Your task to perform on an android device: Open Google Chrome Image 0: 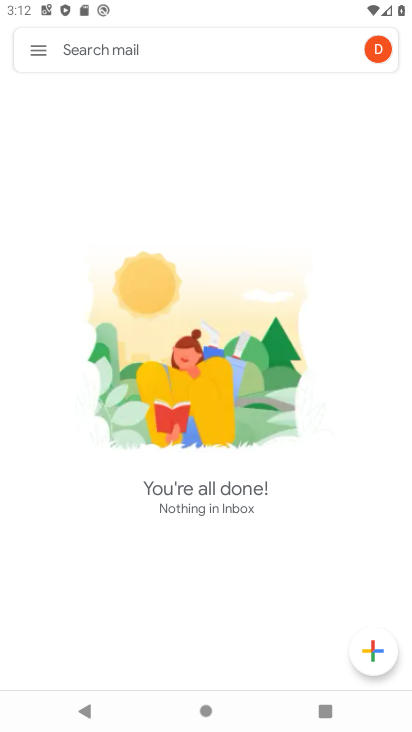
Step 0: press home button
Your task to perform on an android device: Open Google Chrome Image 1: 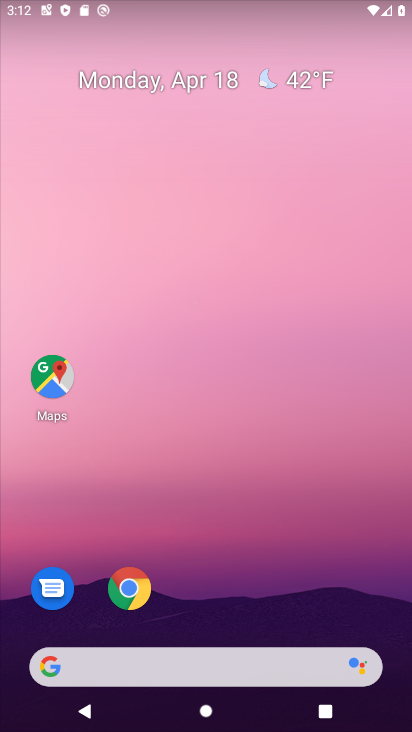
Step 1: click (143, 582)
Your task to perform on an android device: Open Google Chrome Image 2: 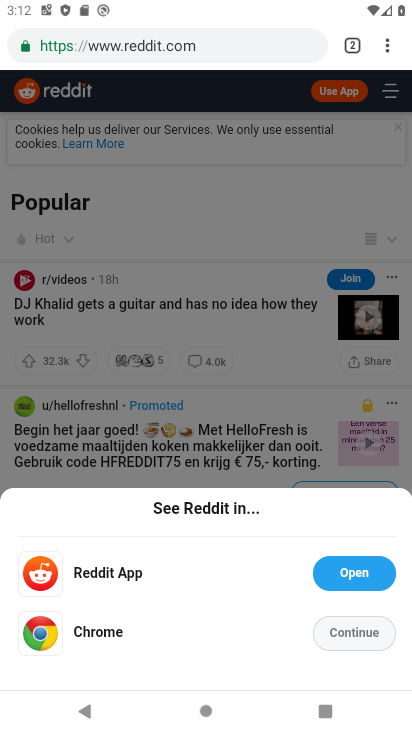
Step 2: task complete